Your task to perform on an android device: Set the phone to "Do not disturb". Image 0: 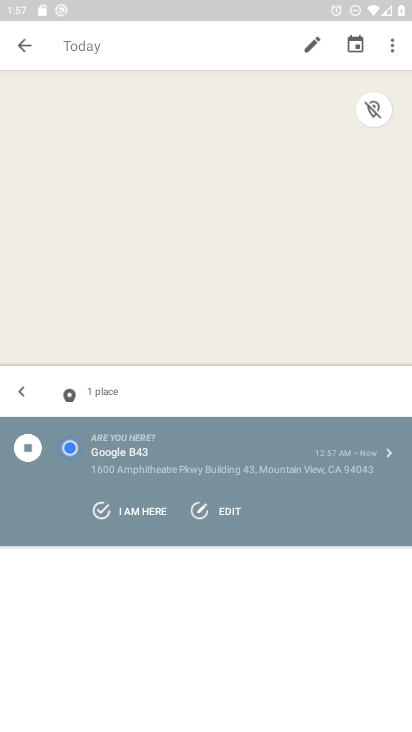
Step 0: press home button
Your task to perform on an android device: Set the phone to "Do not disturb". Image 1: 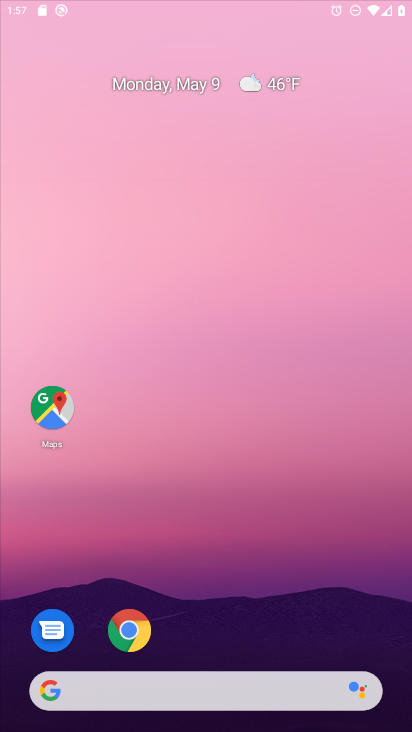
Step 1: drag from (243, 704) to (294, 326)
Your task to perform on an android device: Set the phone to "Do not disturb". Image 2: 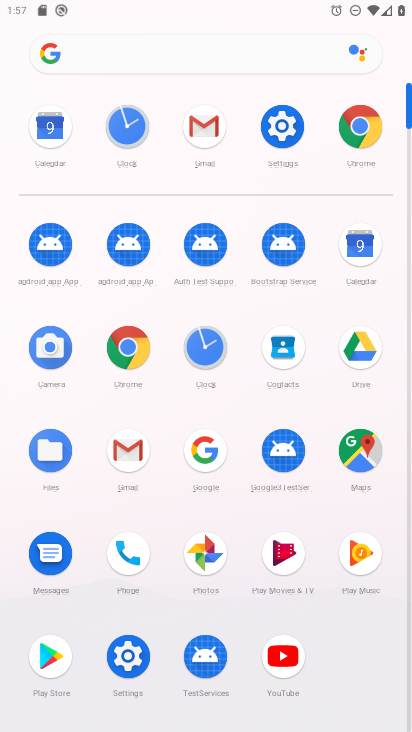
Step 2: click (280, 131)
Your task to perform on an android device: Set the phone to "Do not disturb". Image 3: 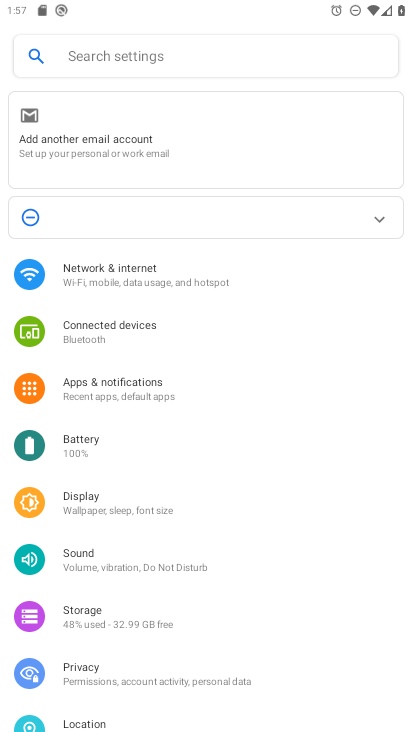
Step 3: click (107, 55)
Your task to perform on an android device: Set the phone to "Do not disturb". Image 4: 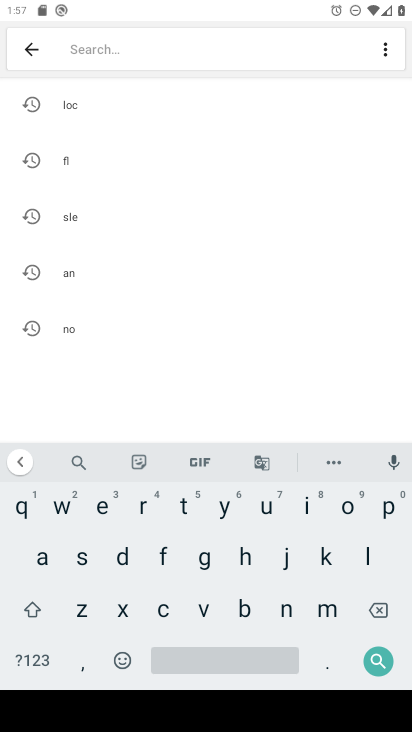
Step 4: click (119, 561)
Your task to perform on an android device: Set the phone to "Do not disturb". Image 5: 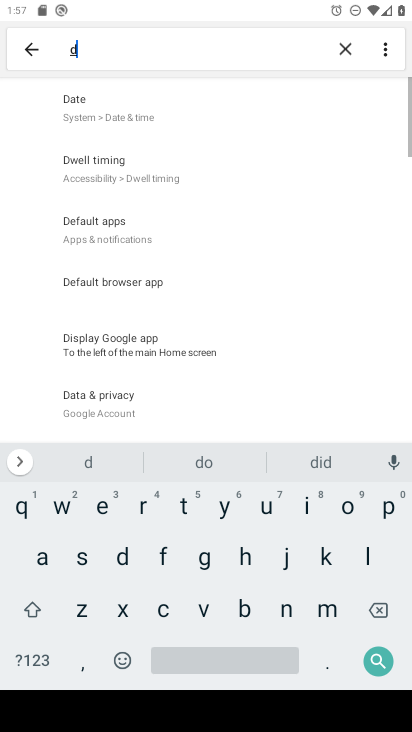
Step 5: click (285, 606)
Your task to perform on an android device: Set the phone to "Do not disturb". Image 6: 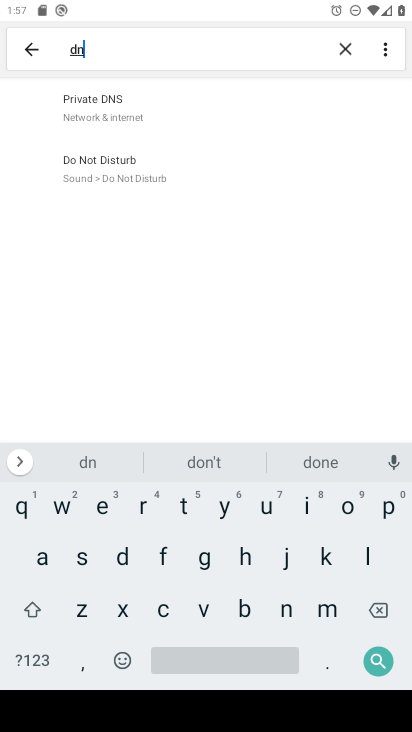
Step 6: click (121, 555)
Your task to perform on an android device: Set the phone to "Do not disturb". Image 7: 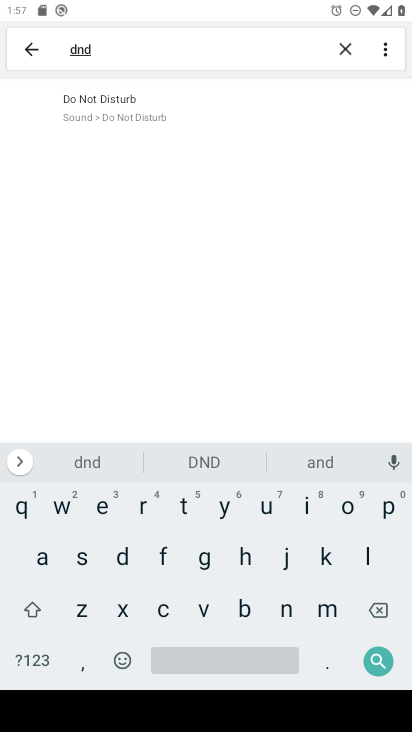
Step 7: click (138, 120)
Your task to perform on an android device: Set the phone to "Do not disturb". Image 8: 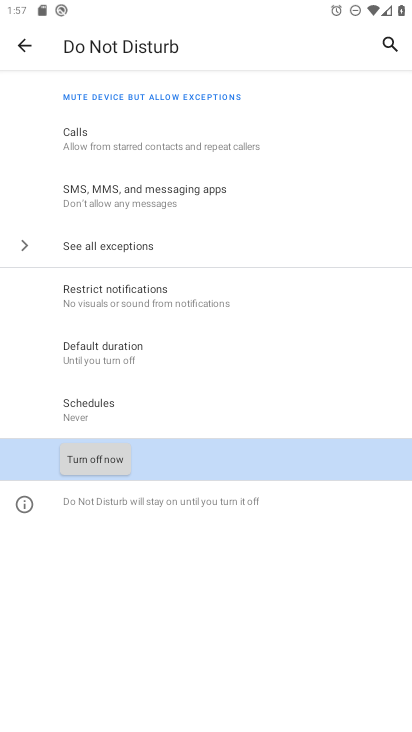
Step 8: click (97, 465)
Your task to perform on an android device: Set the phone to "Do not disturb". Image 9: 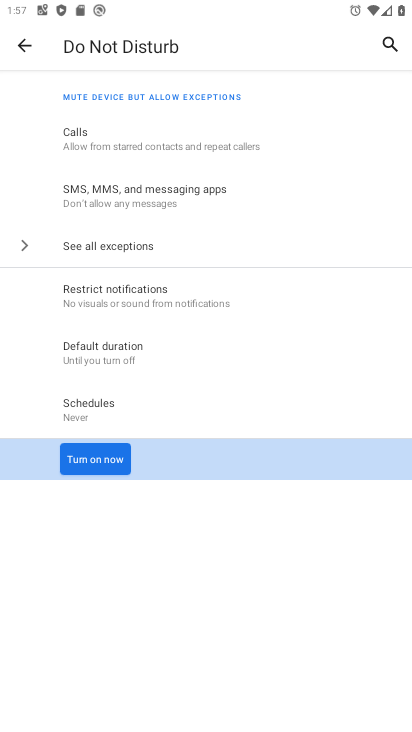
Step 9: task complete